Your task to perform on an android device: Go to notification settings Image 0: 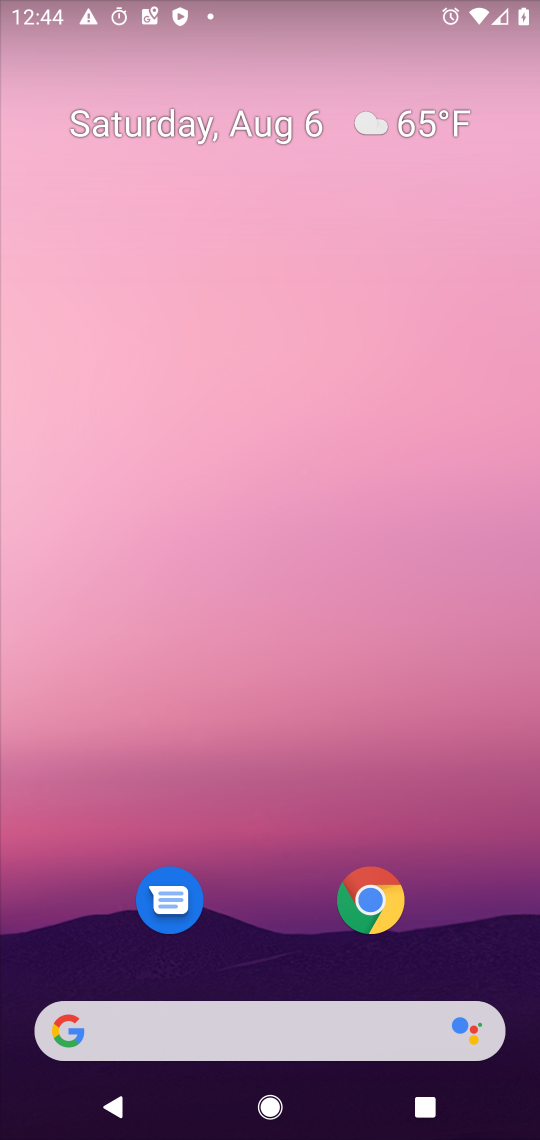
Step 0: drag from (239, 919) to (278, 3)
Your task to perform on an android device: Go to notification settings Image 1: 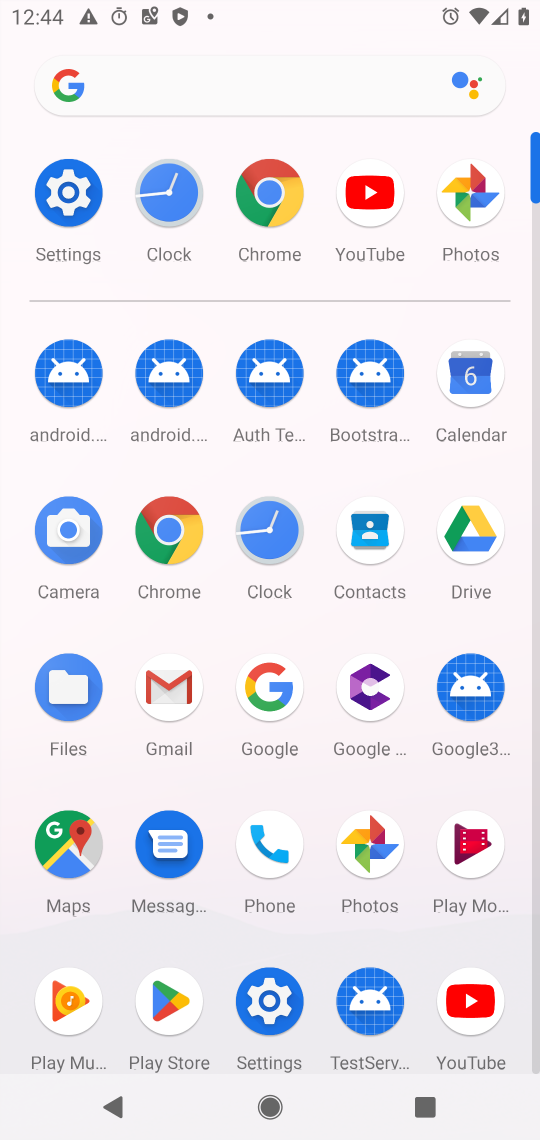
Step 1: click (66, 189)
Your task to perform on an android device: Go to notification settings Image 2: 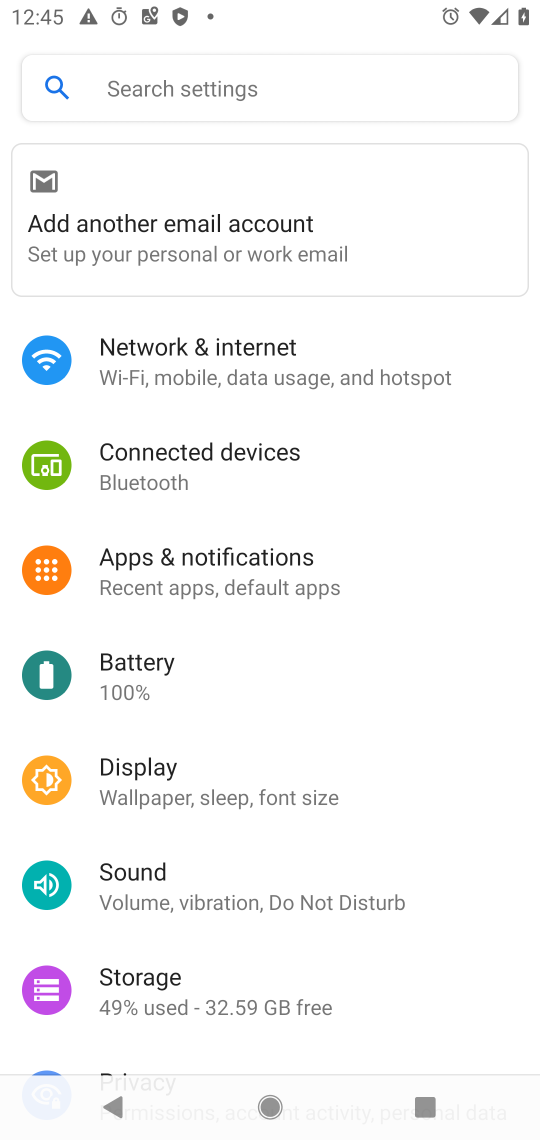
Step 2: click (196, 561)
Your task to perform on an android device: Go to notification settings Image 3: 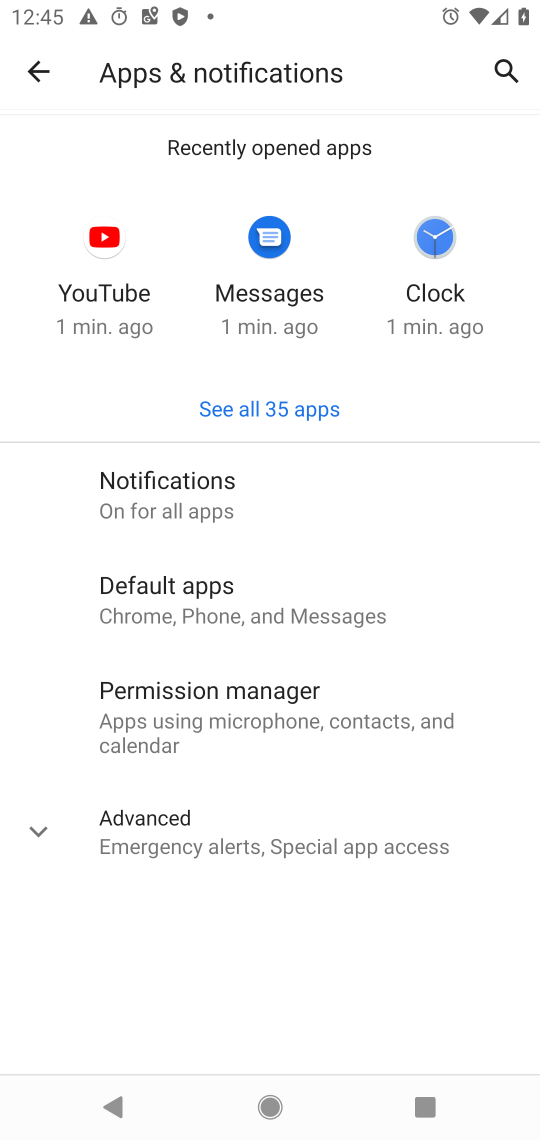
Step 3: click (137, 507)
Your task to perform on an android device: Go to notification settings Image 4: 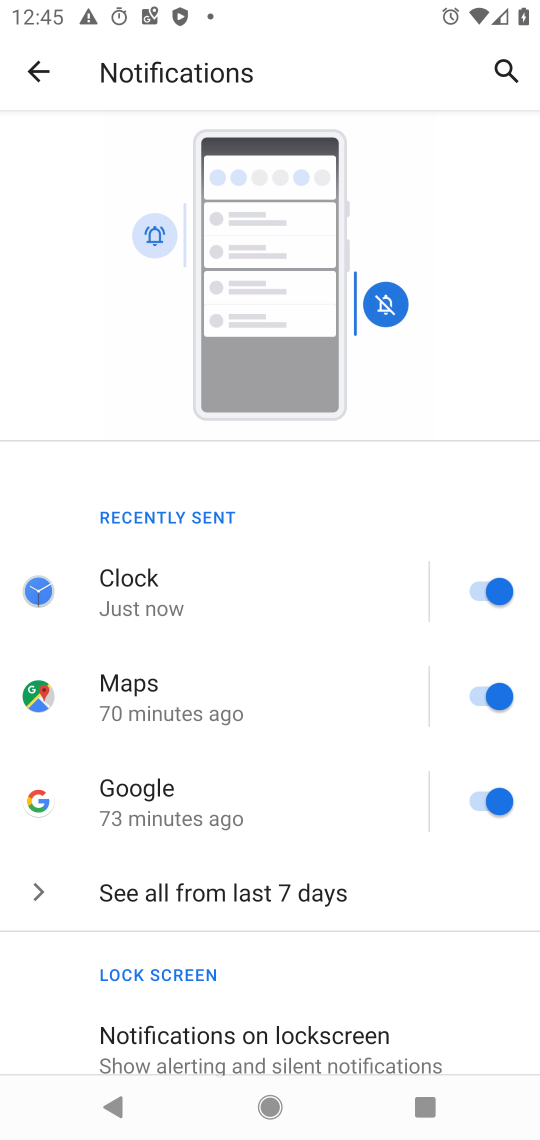
Step 4: drag from (185, 923) to (170, 558)
Your task to perform on an android device: Go to notification settings Image 5: 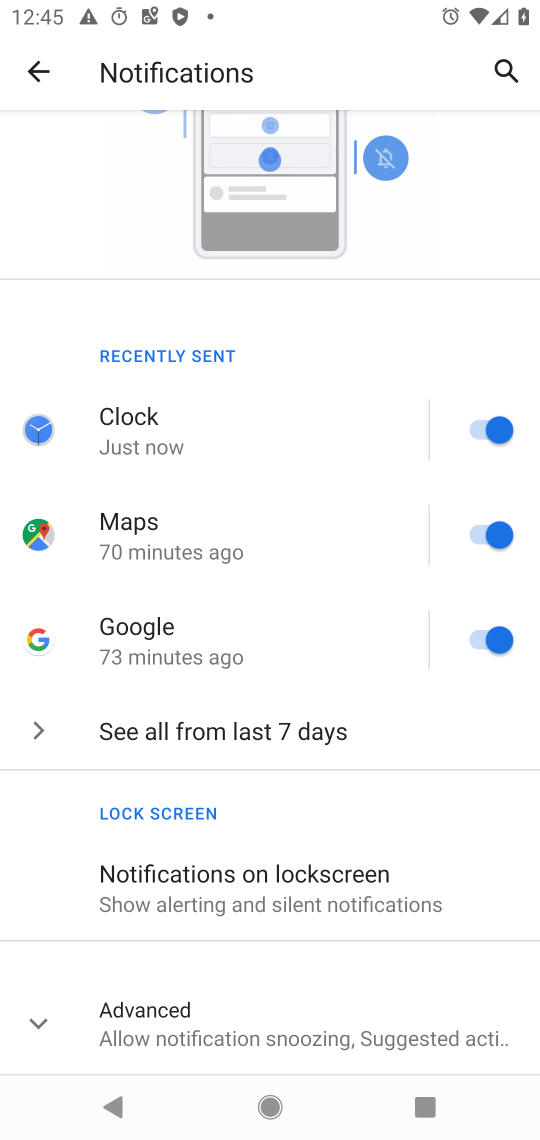
Step 5: click (250, 876)
Your task to perform on an android device: Go to notification settings Image 6: 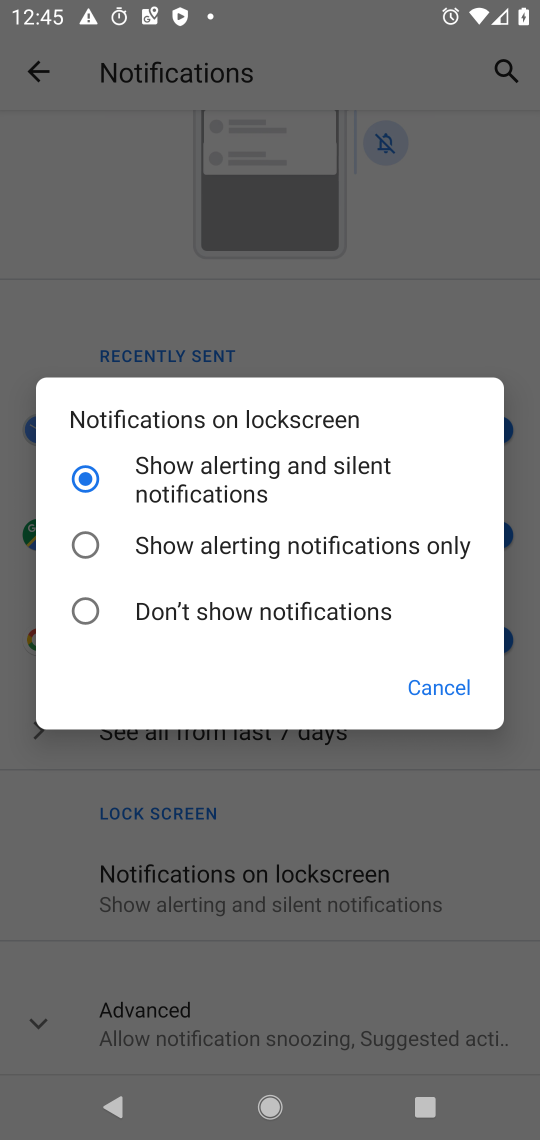
Step 6: click (451, 682)
Your task to perform on an android device: Go to notification settings Image 7: 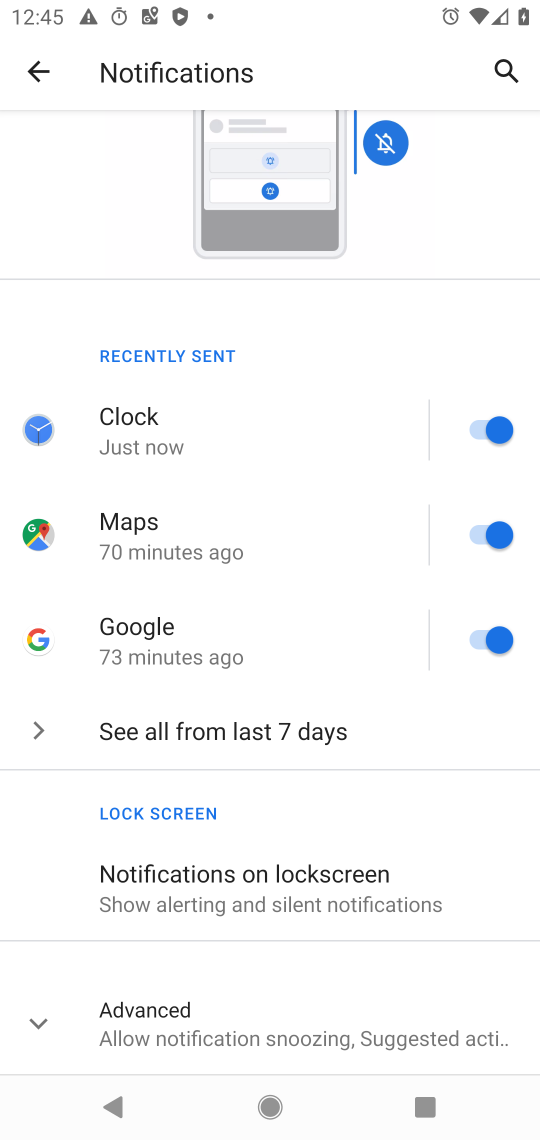
Step 7: task complete